Your task to perform on an android device: open app "Truecaller" Image 0: 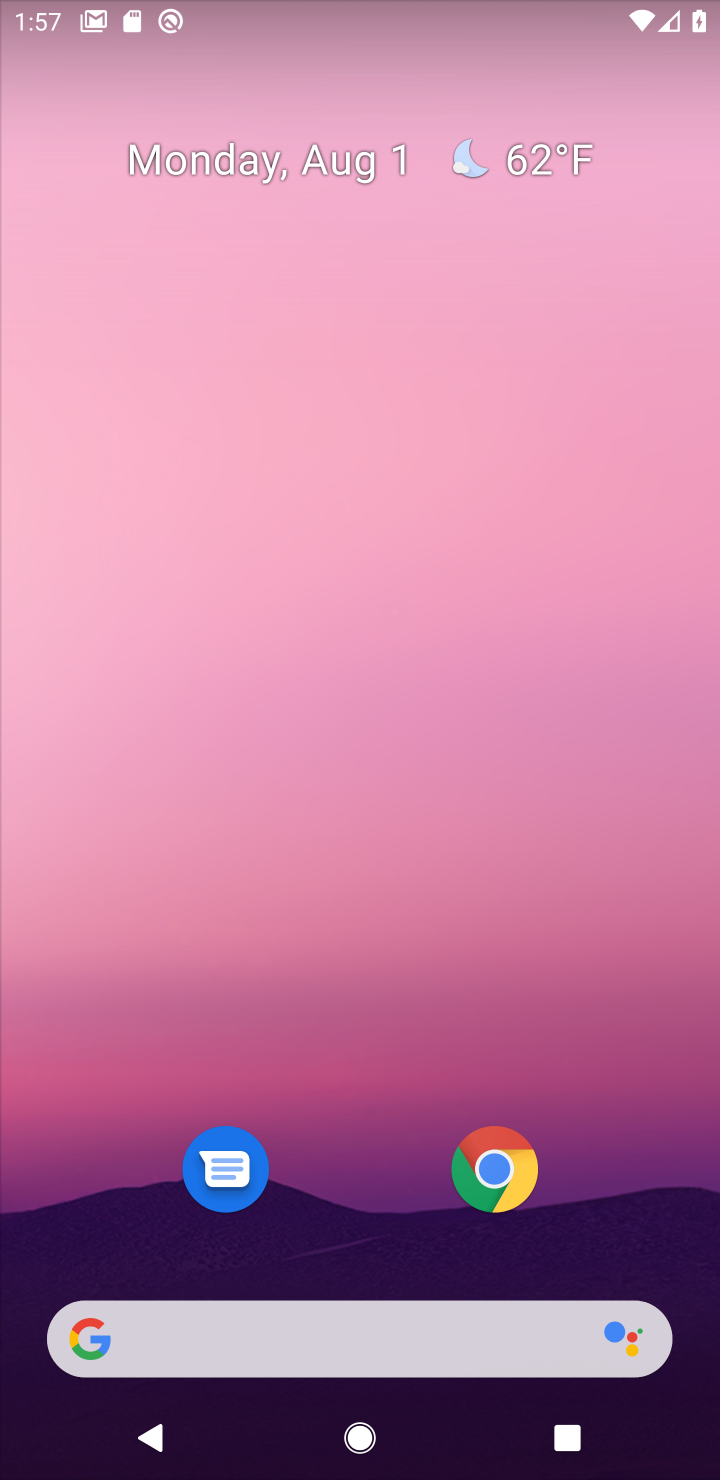
Step 0: drag from (303, 646) to (311, 137)
Your task to perform on an android device: open app "Truecaller" Image 1: 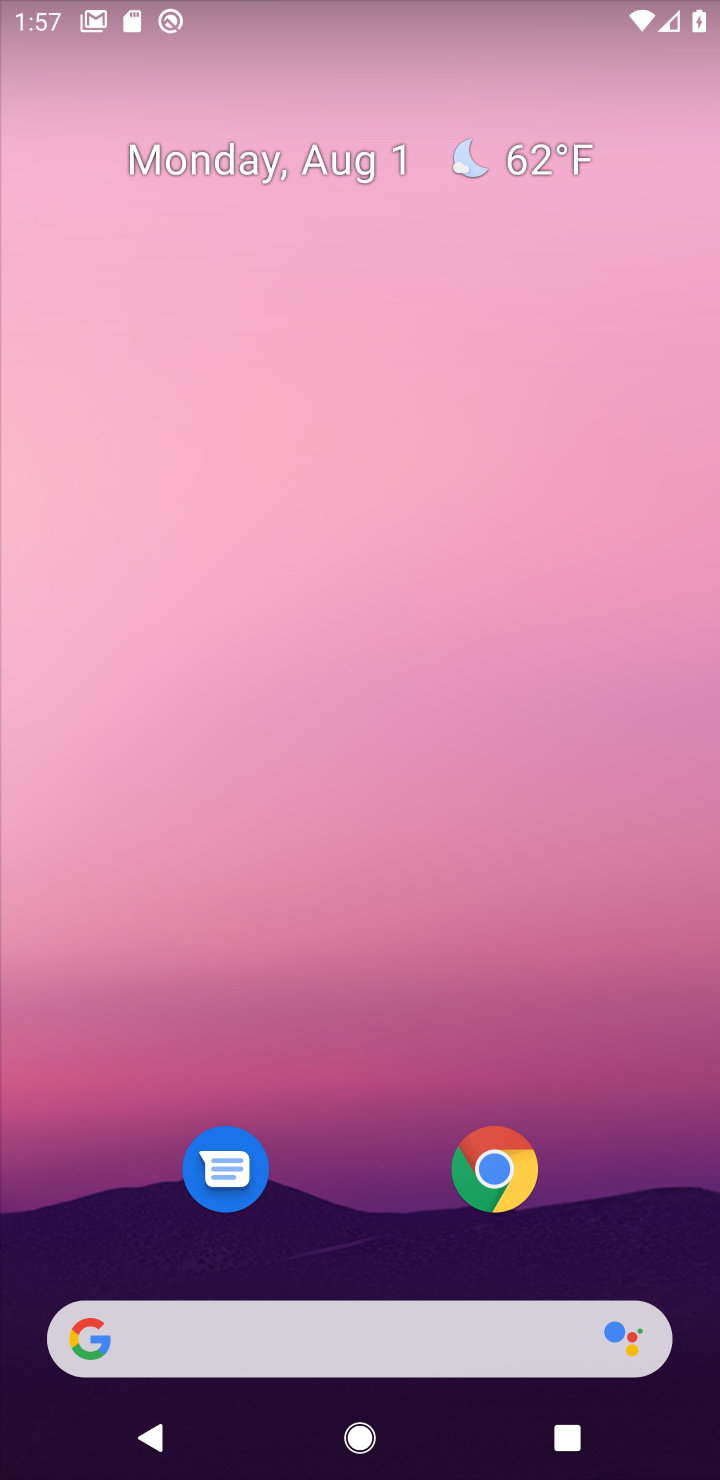
Step 1: drag from (345, 966) to (327, 45)
Your task to perform on an android device: open app "Truecaller" Image 2: 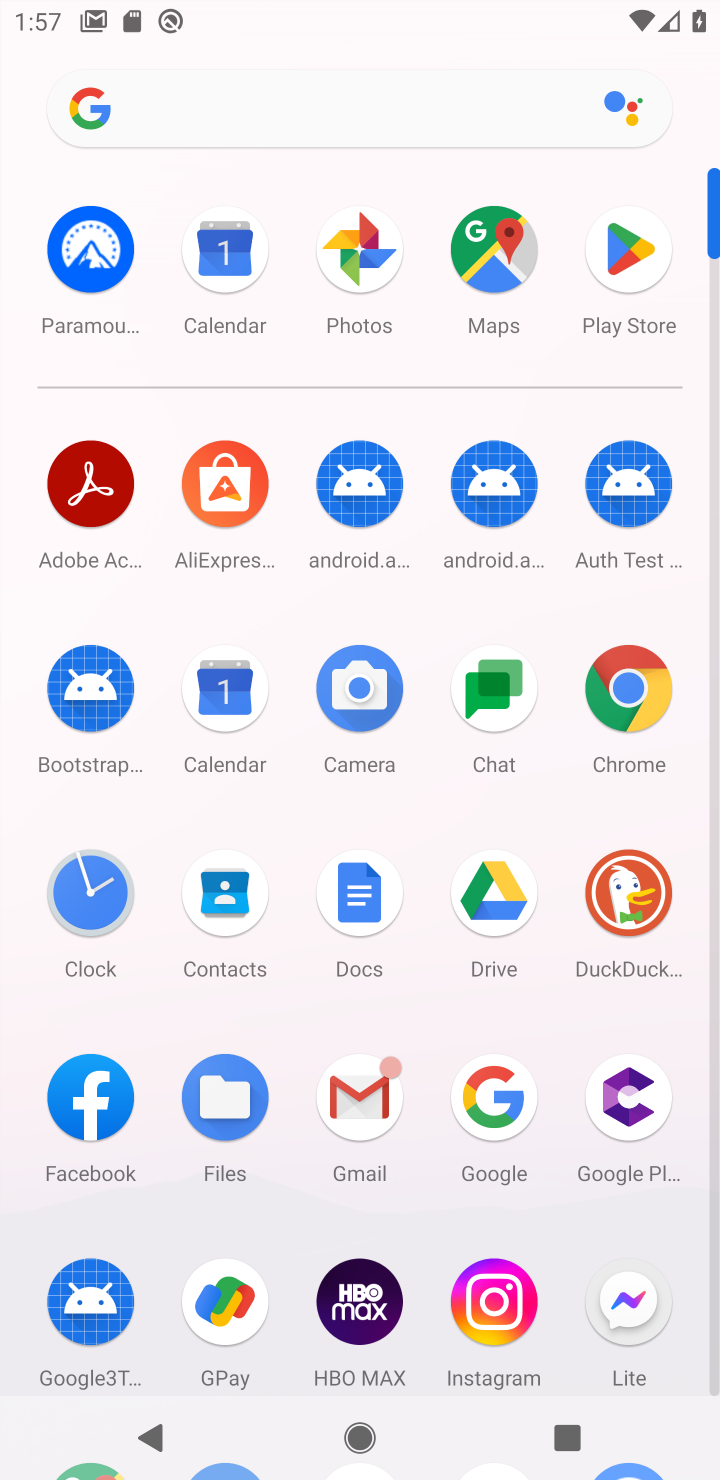
Step 2: click (620, 321)
Your task to perform on an android device: open app "Truecaller" Image 3: 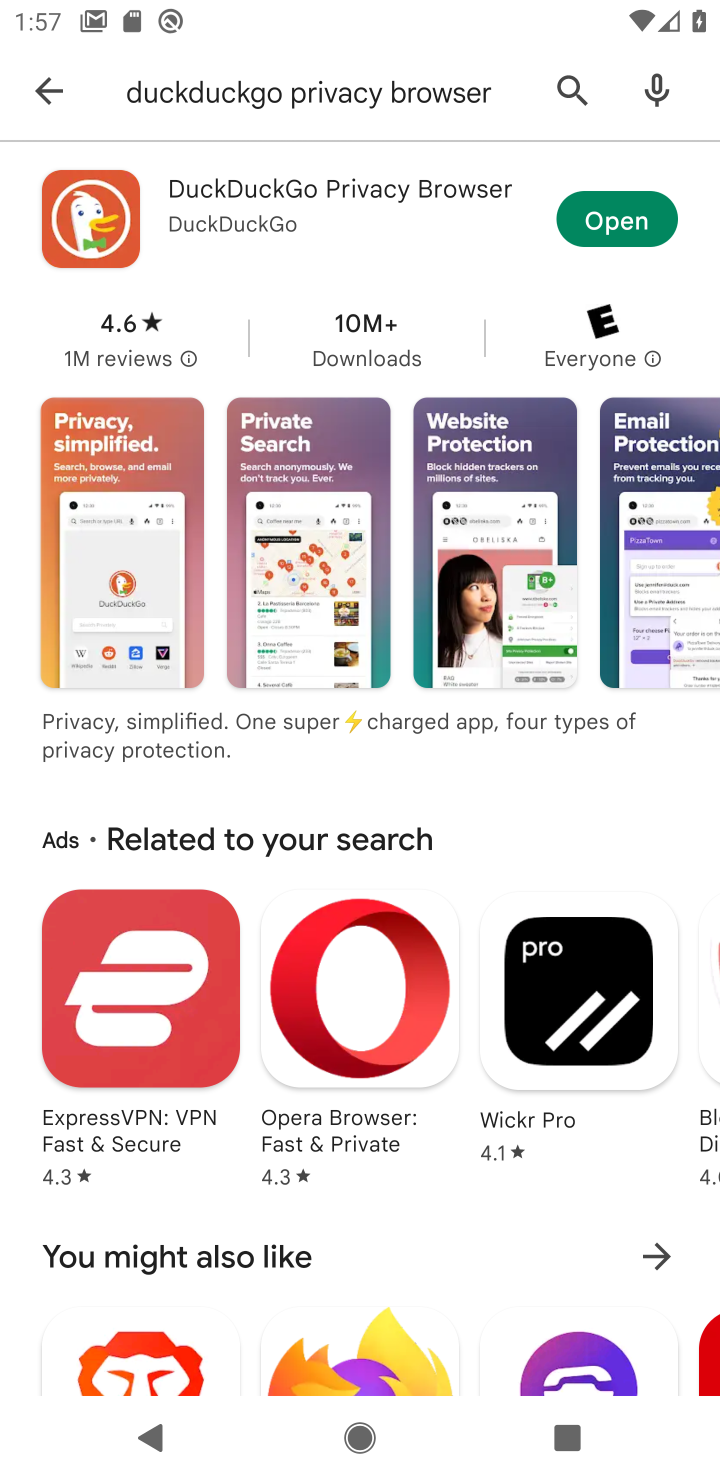
Step 3: click (38, 85)
Your task to perform on an android device: open app "Truecaller" Image 4: 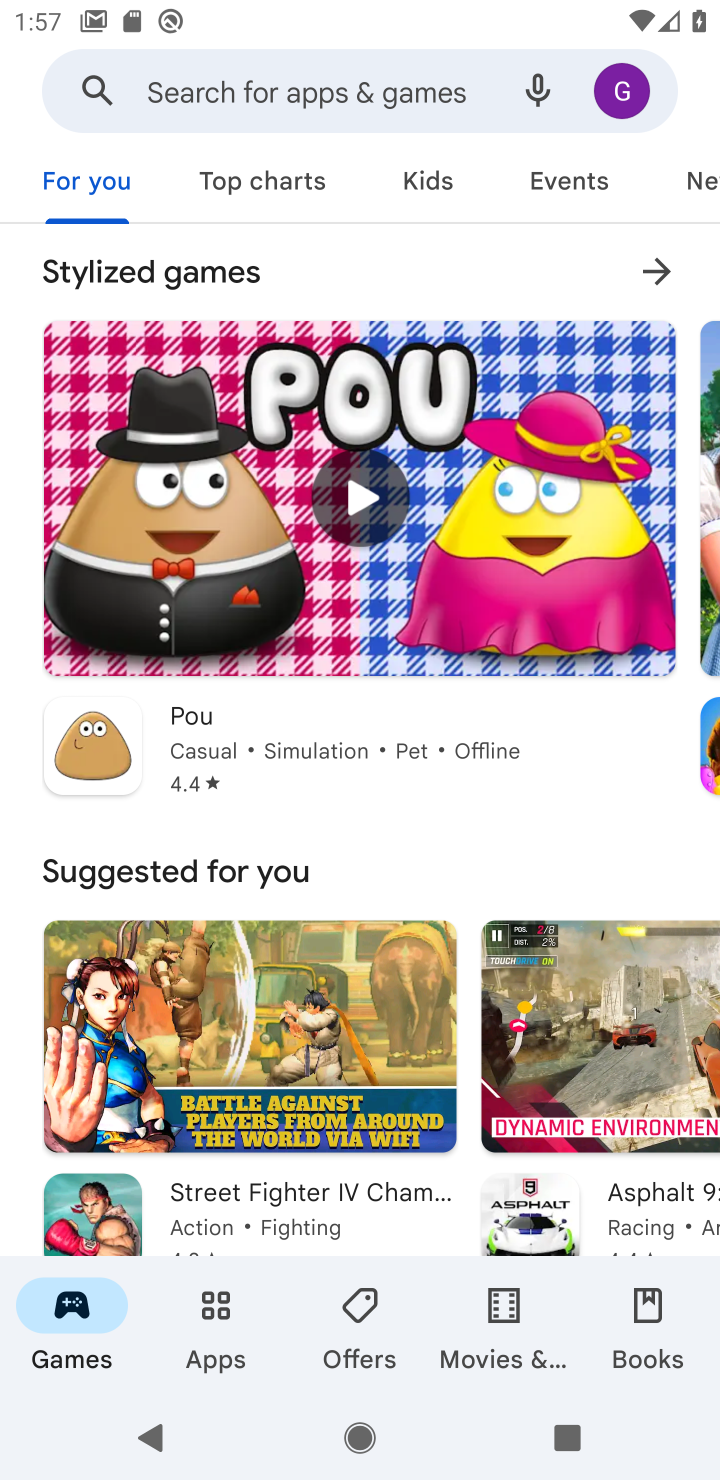
Step 4: click (363, 86)
Your task to perform on an android device: open app "Truecaller" Image 5: 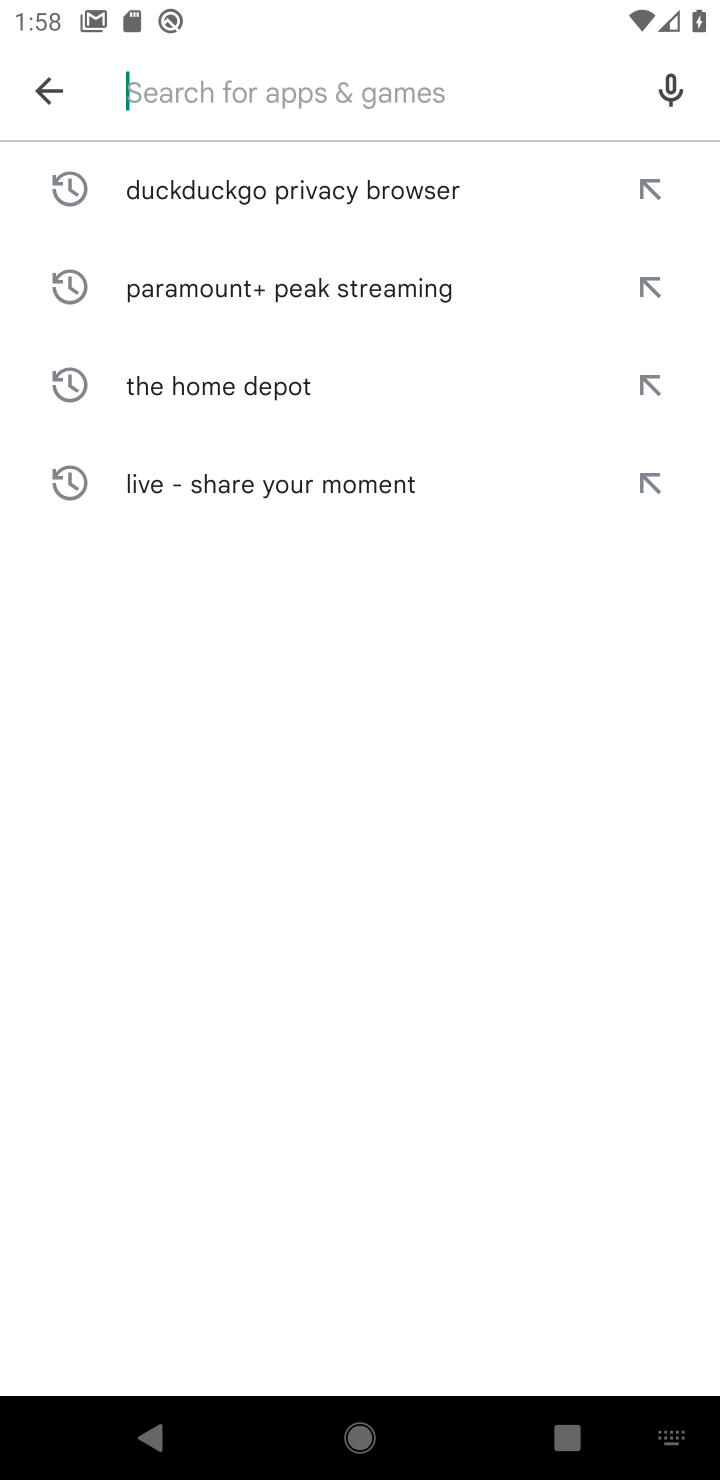
Step 5: type "Truecaller"
Your task to perform on an android device: open app "Truecaller" Image 6: 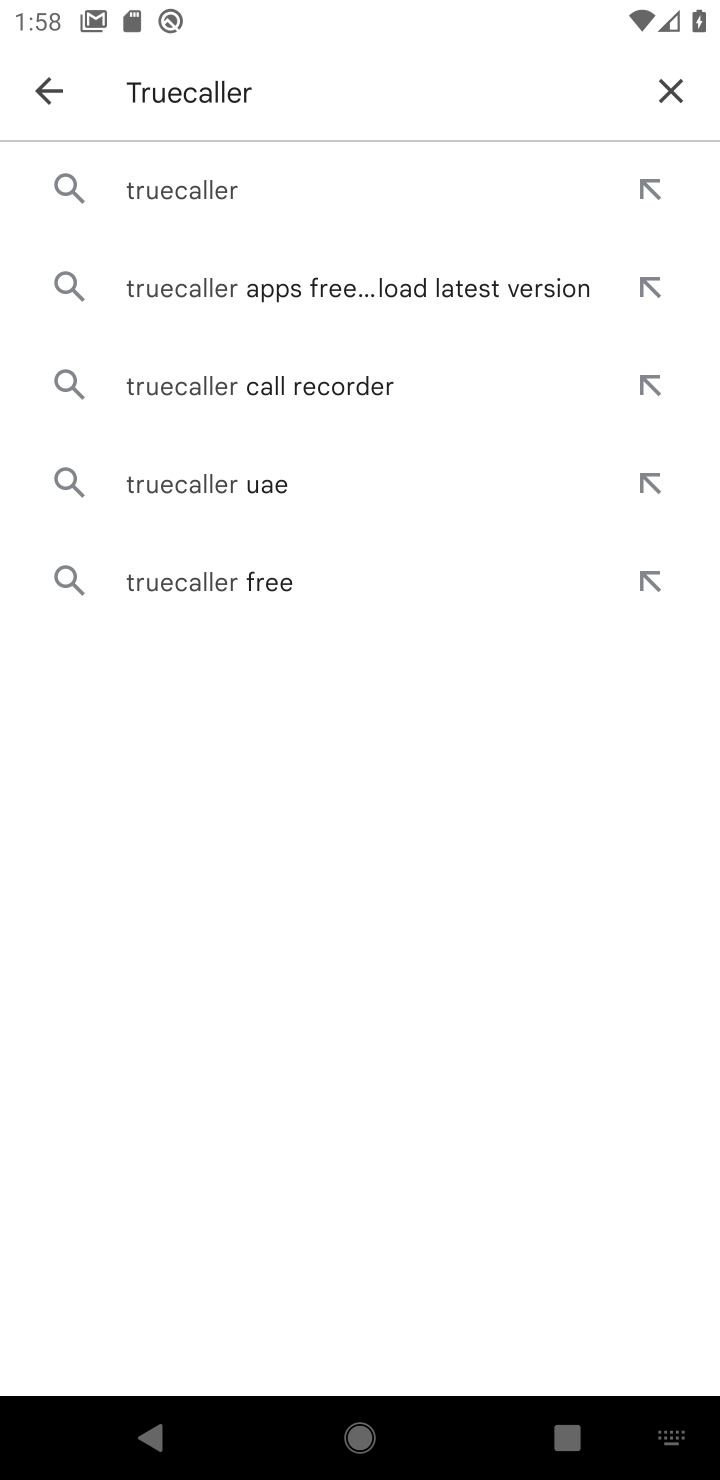
Step 6: click (142, 181)
Your task to perform on an android device: open app "Truecaller" Image 7: 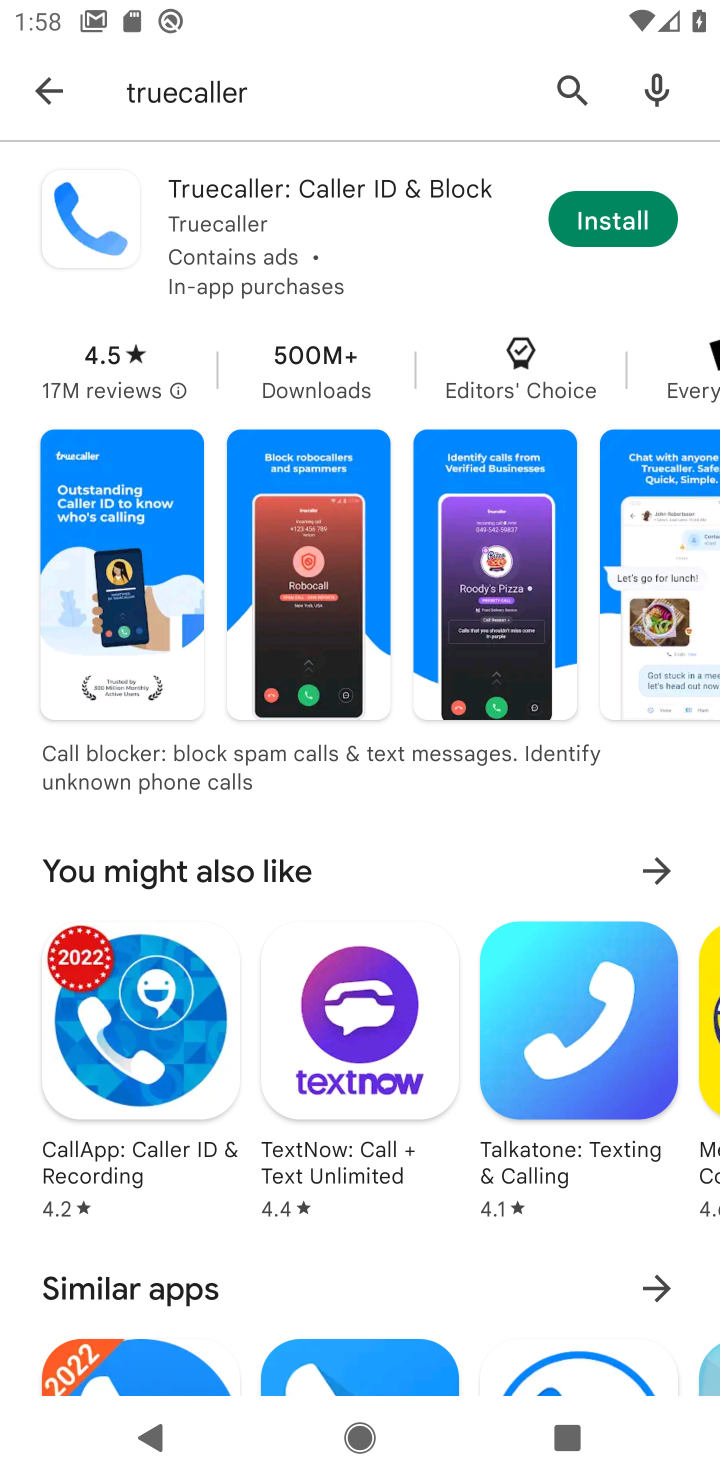
Step 7: click (599, 226)
Your task to perform on an android device: open app "Truecaller" Image 8: 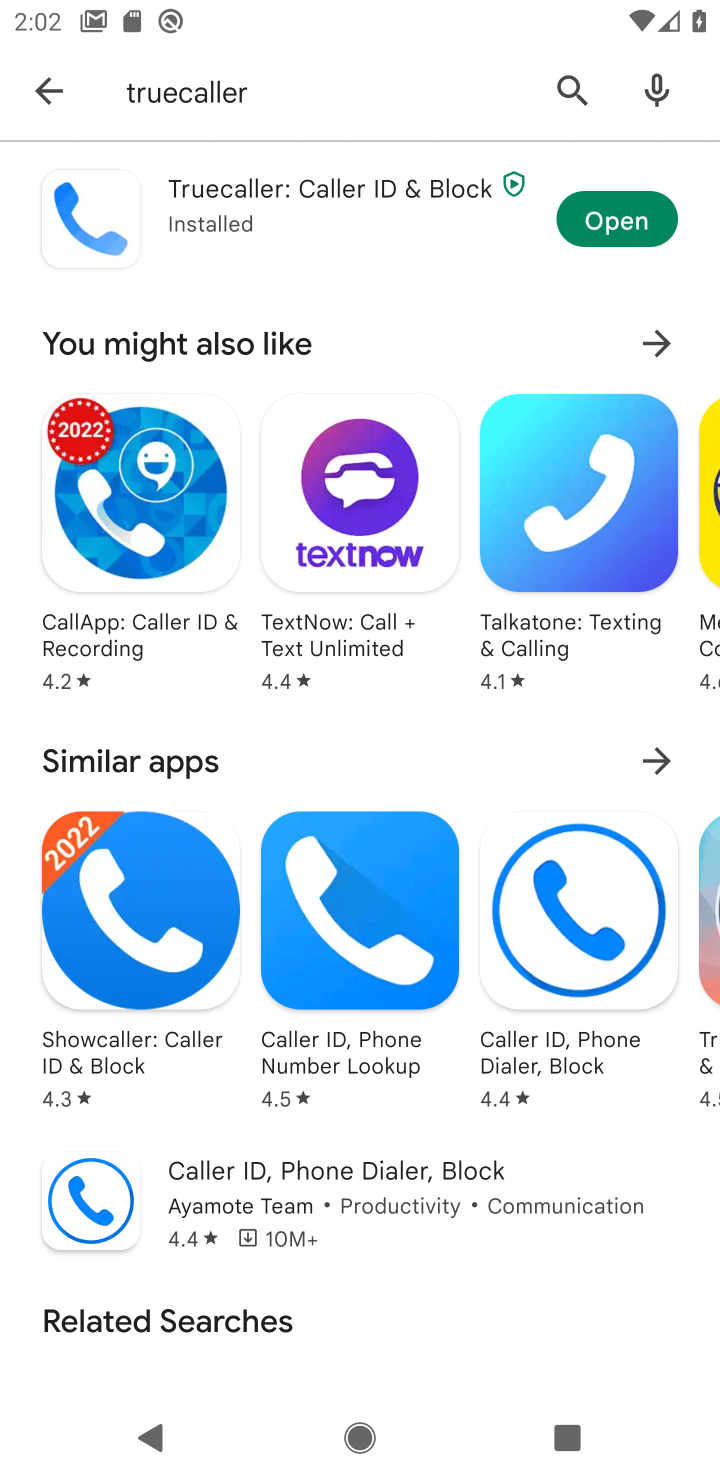
Step 8: click (632, 230)
Your task to perform on an android device: open app "Truecaller" Image 9: 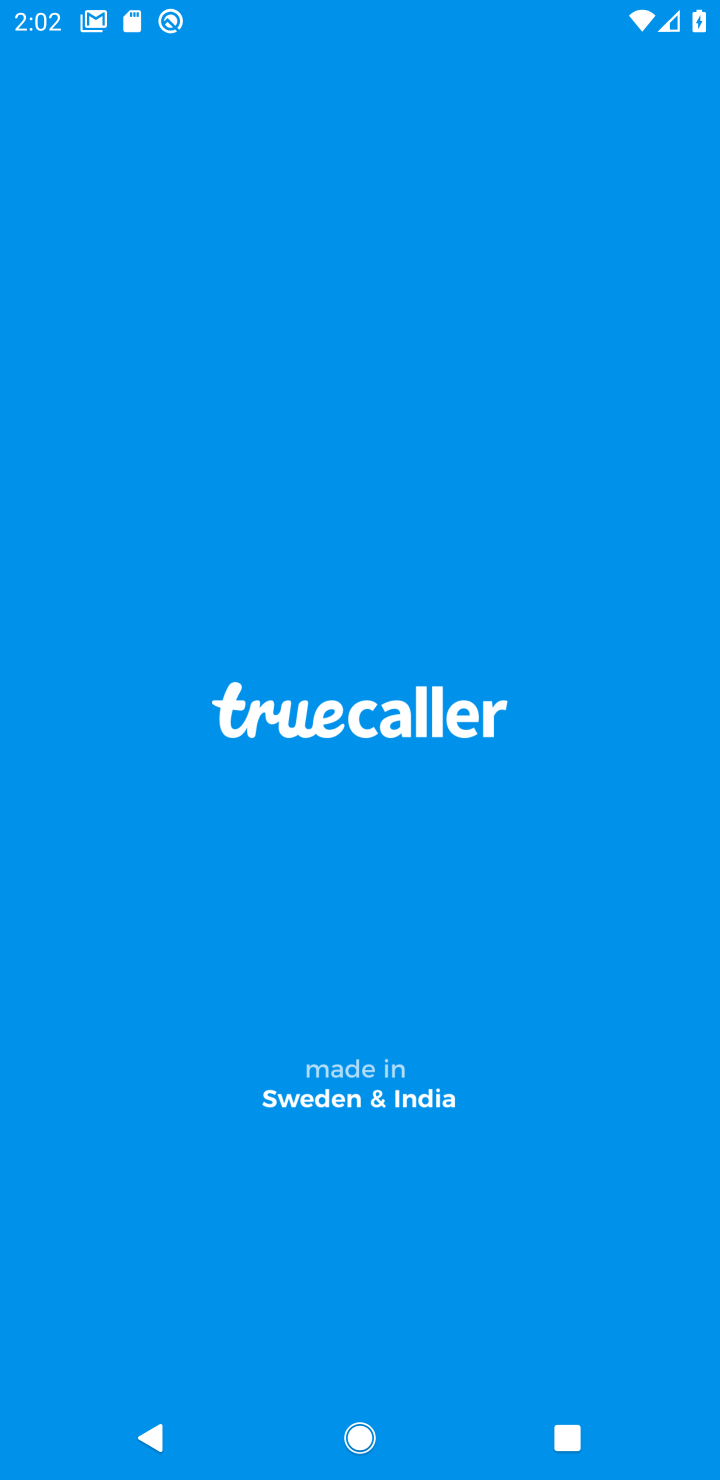
Step 9: task complete